Your task to perform on an android device: check battery use Image 0: 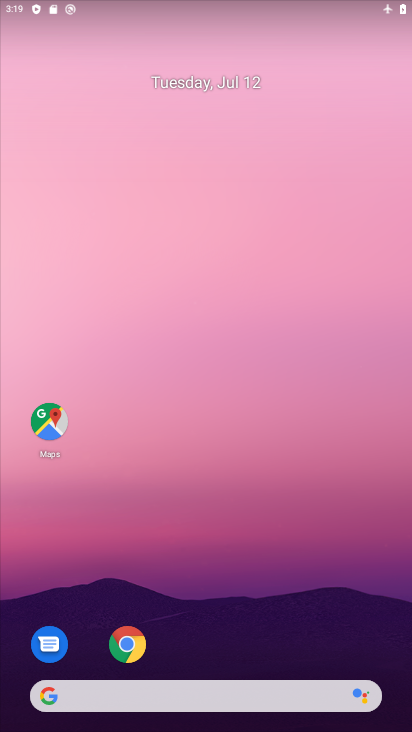
Step 0: drag from (269, 522) to (229, 179)
Your task to perform on an android device: check battery use Image 1: 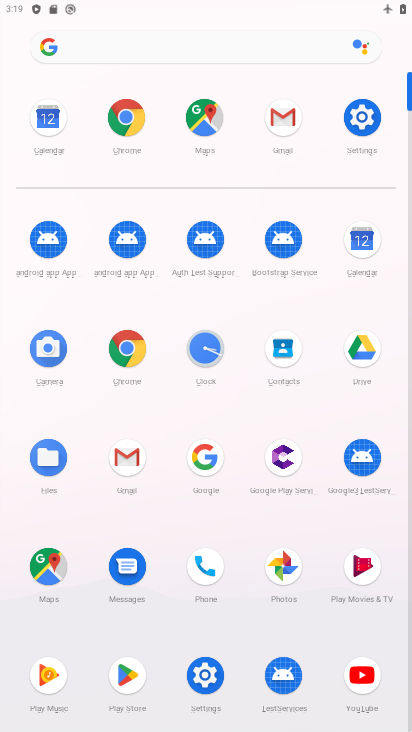
Step 1: click (372, 113)
Your task to perform on an android device: check battery use Image 2: 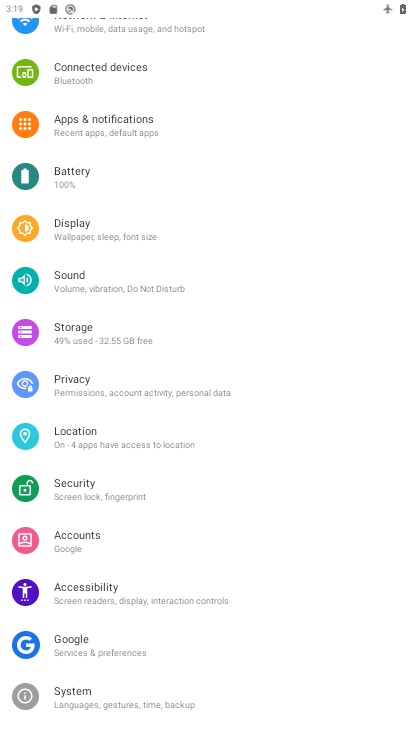
Step 2: click (83, 179)
Your task to perform on an android device: check battery use Image 3: 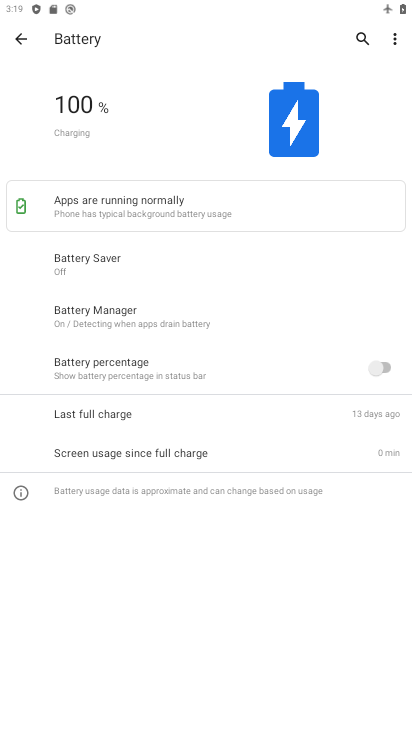
Step 3: click (397, 38)
Your task to perform on an android device: check battery use Image 4: 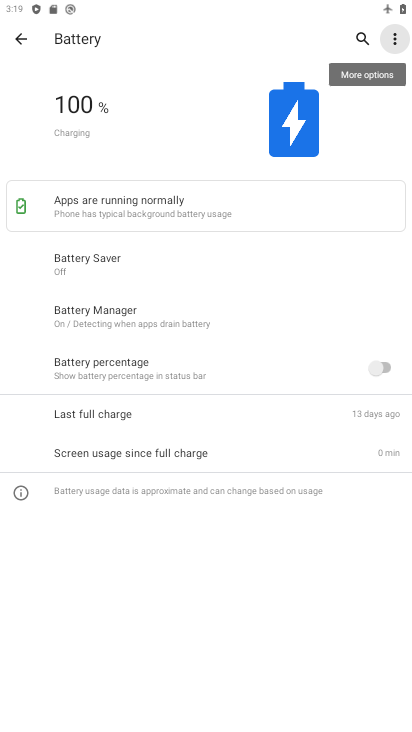
Step 4: click (397, 38)
Your task to perform on an android device: check battery use Image 5: 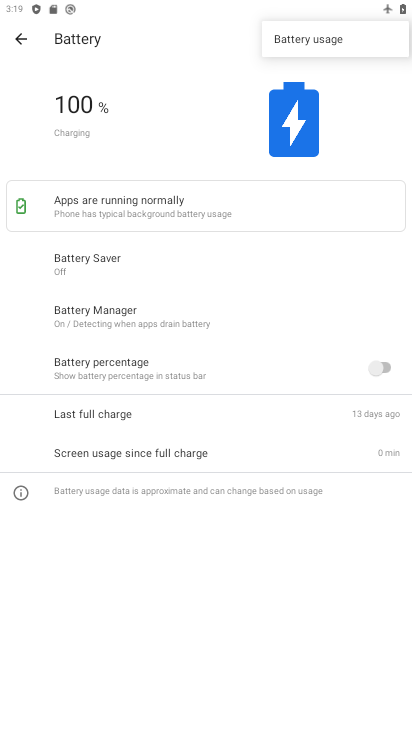
Step 5: click (331, 38)
Your task to perform on an android device: check battery use Image 6: 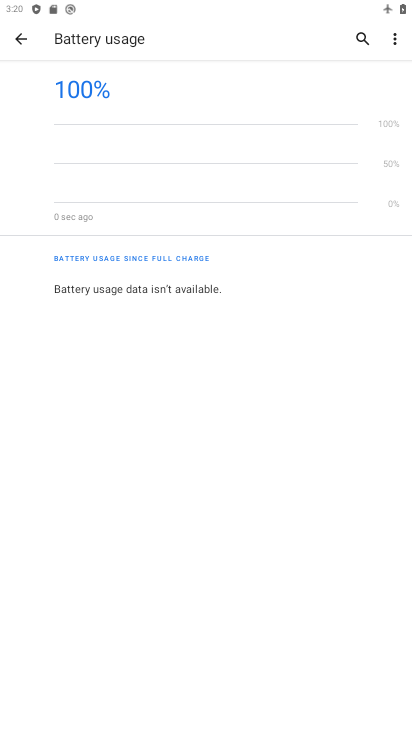
Step 6: task complete